Your task to perform on an android device: open a new tab in the chrome app Image 0: 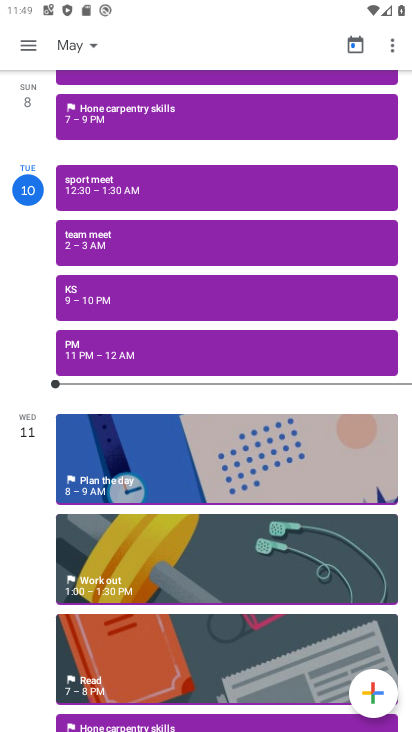
Step 0: press home button
Your task to perform on an android device: open a new tab in the chrome app Image 1: 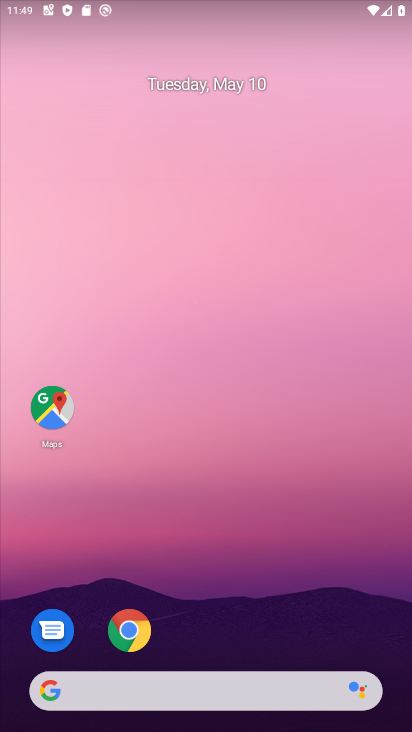
Step 1: click (129, 636)
Your task to perform on an android device: open a new tab in the chrome app Image 2: 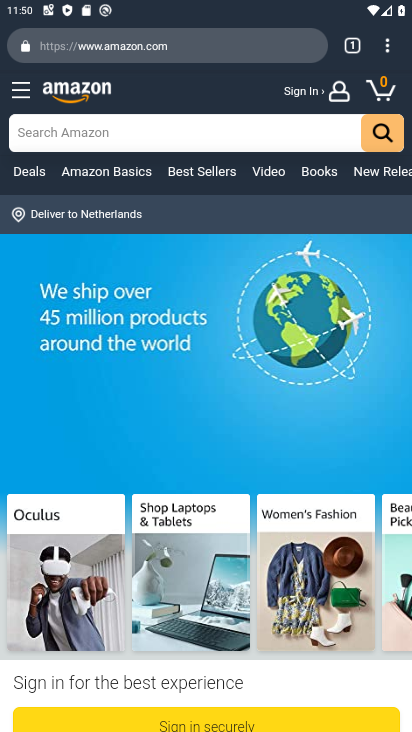
Step 2: click (387, 43)
Your task to perform on an android device: open a new tab in the chrome app Image 3: 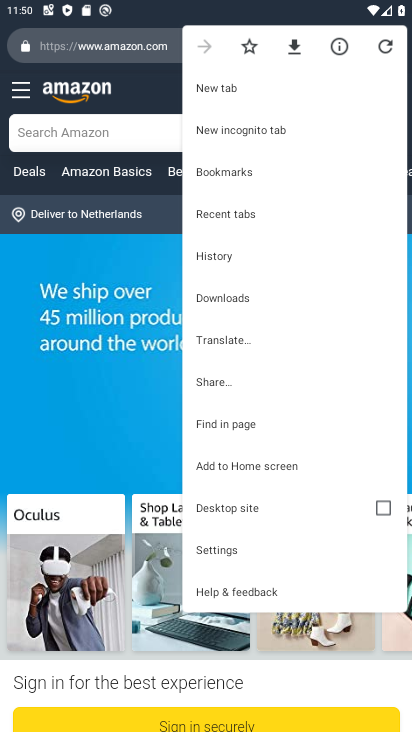
Step 3: click (260, 91)
Your task to perform on an android device: open a new tab in the chrome app Image 4: 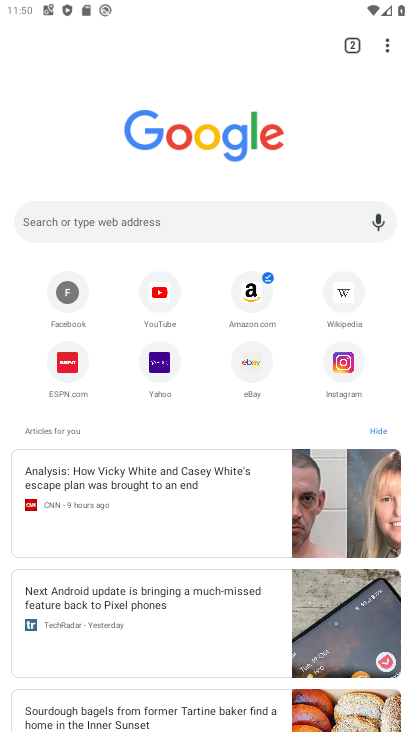
Step 4: task complete